Your task to perform on an android device: Open Amazon Image 0: 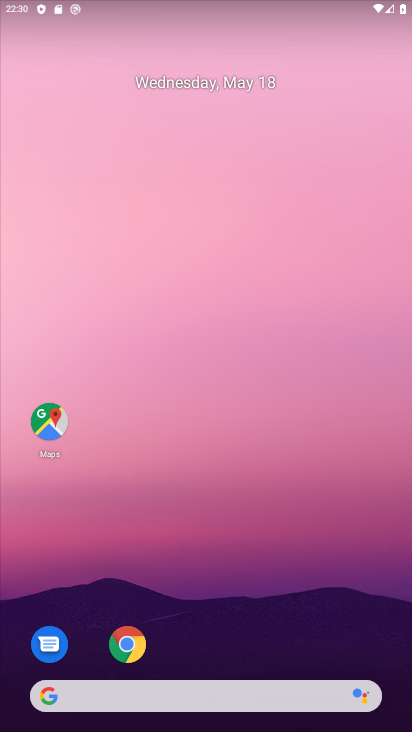
Step 0: drag from (273, 612) to (269, 57)
Your task to perform on an android device: Open Amazon Image 1: 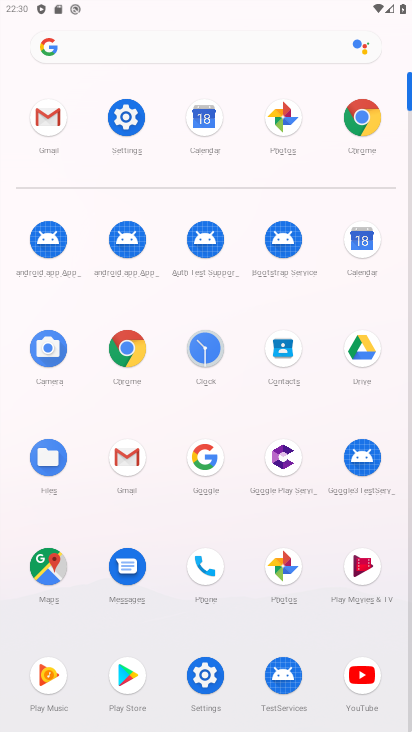
Step 1: click (351, 113)
Your task to perform on an android device: Open Amazon Image 2: 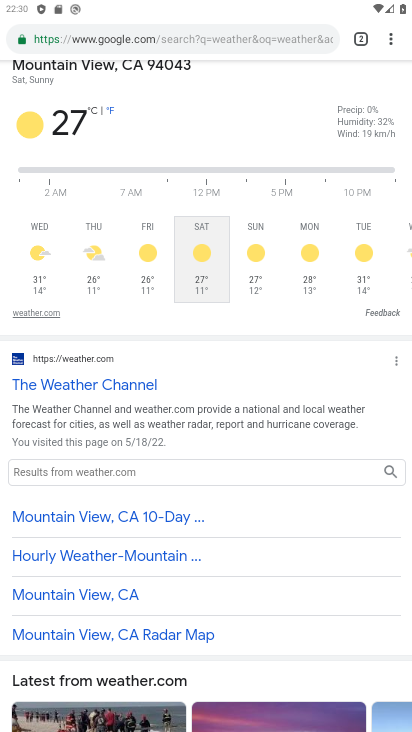
Step 2: click (197, 28)
Your task to perform on an android device: Open Amazon Image 3: 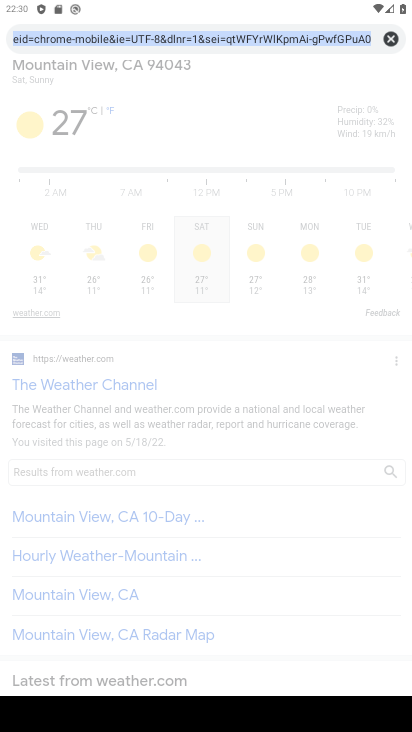
Step 3: type "amazon"
Your task to perform on an android device: Open Amazon Image 4: 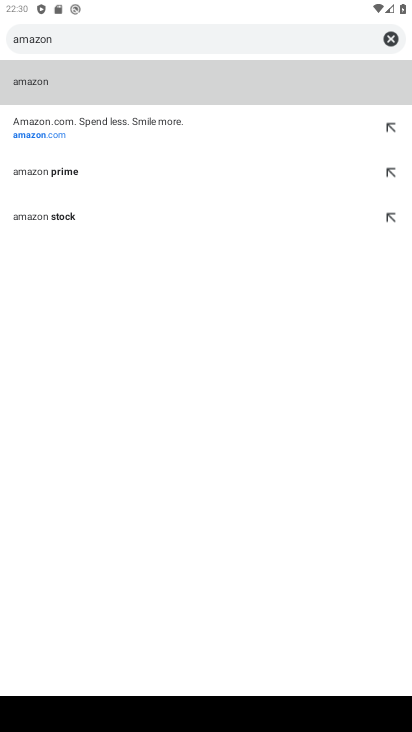
Step 4: click (30, 132)
Your task to perform on an android device: Open Amazon Image 5: 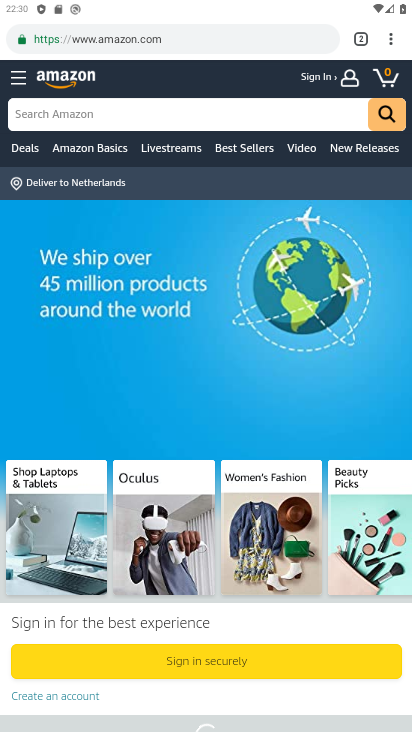
Step 5: task complete